Your task to perform on an android device: refresh tabs in the chrome app Image 0: 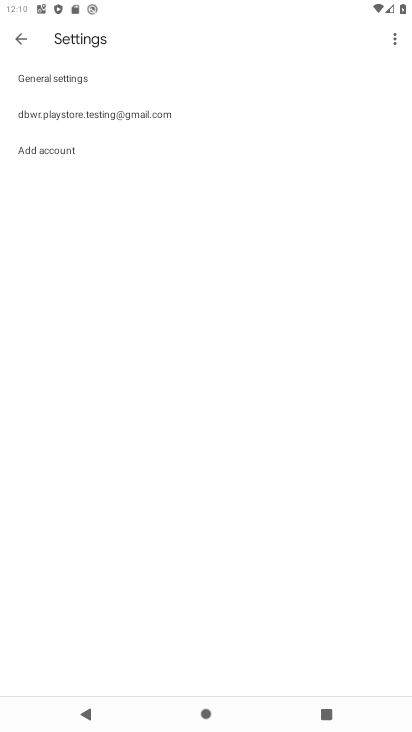
Step 0: press home button
Your task to perform on an android device: refresh tabs in the chrome app Image 1: 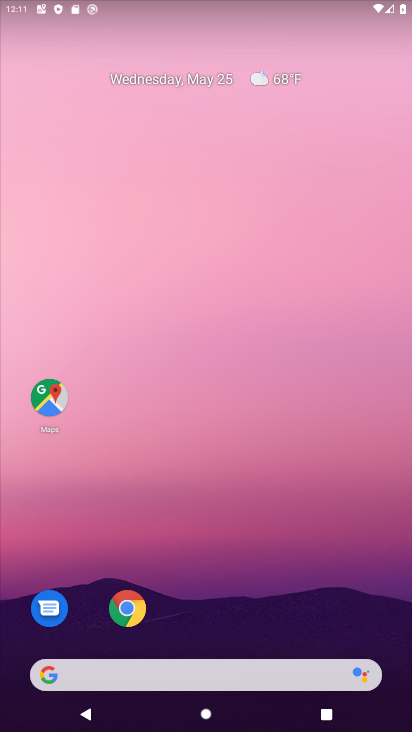
Step 1: click (121, 622)
Your task to perform on an android device: refresh tabs in the chrome app Image 2: 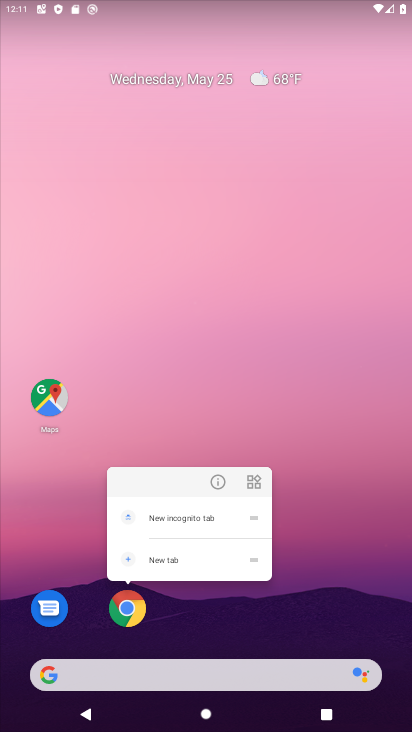
Step 2: click (125, 609)
Your task to perform on an android device: refresh tabs in the chrome app Image 3: 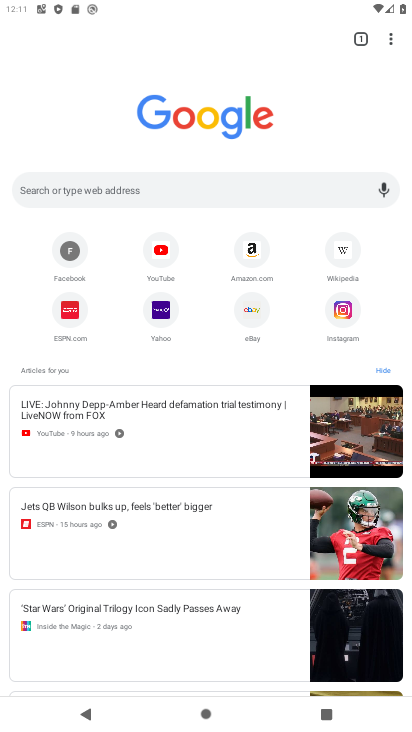
Step 3: click (391, 41)
Your task to perform on an android device: refresh tabs in the chrome app Image 4: 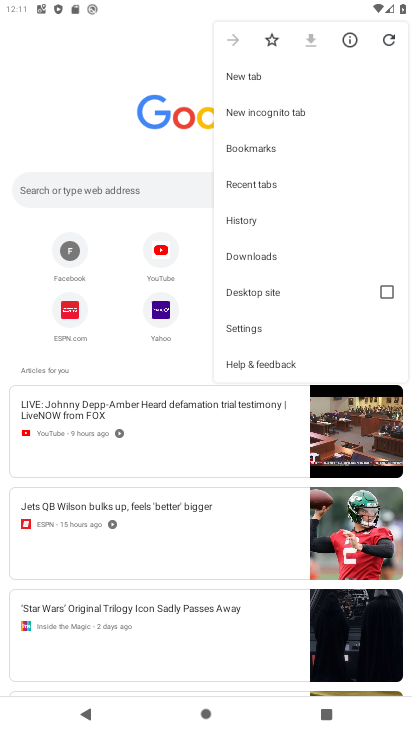
Step 4: click (393, 41)
Your task to perform on an android device: refresh tabs in the chrome app Image 5: 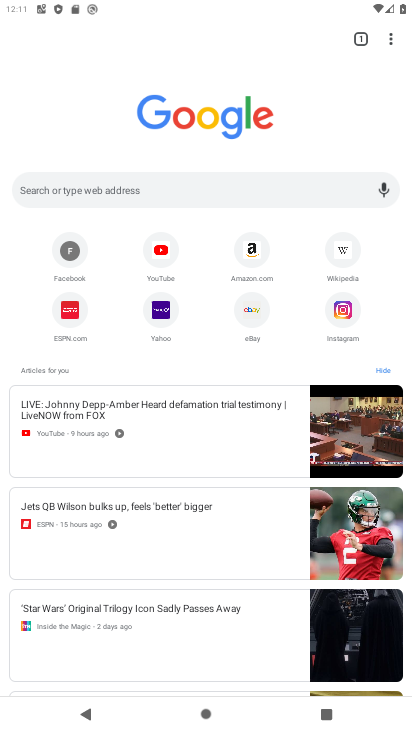
Step 5: task complete